Your task to perform on an android device: toggle airplane mode Image 0: 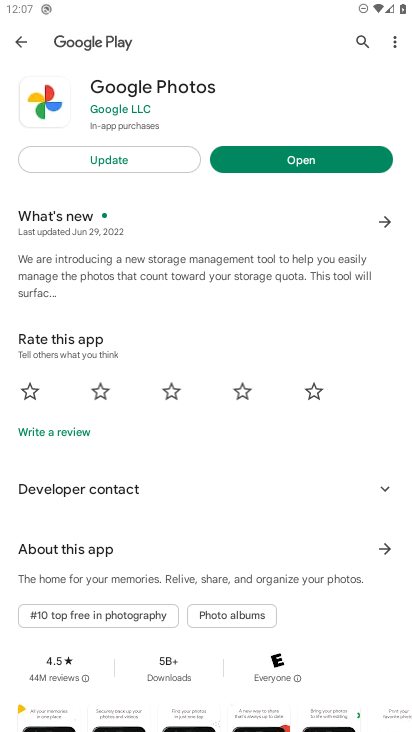
Step 0: press home button
Your task to perform on an android device: toggle airplane mode Image 1: 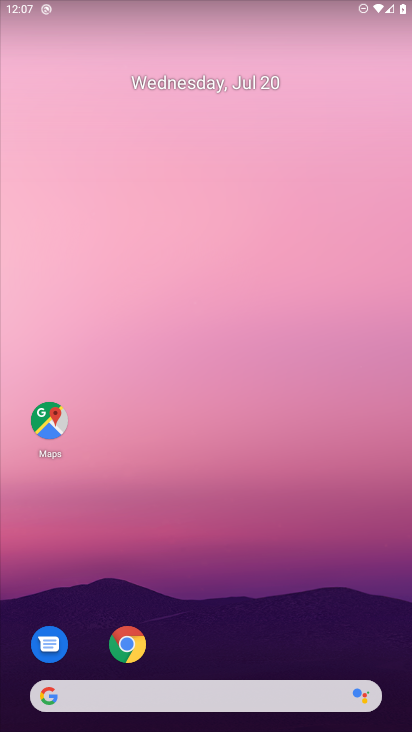
Step 1: drag from (23, 694) to (276, 38)
Your task to perform on an android device: toggle airplane mode Image 2: 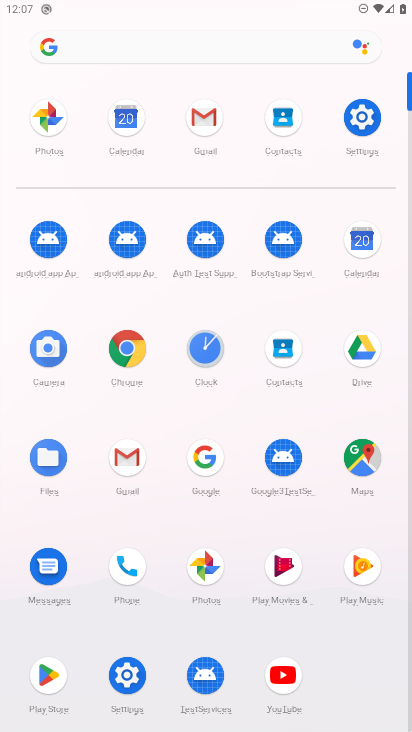
Step 2: click (139, 666)
Your task to perform on an android device: toggle airplane mode Image 3: 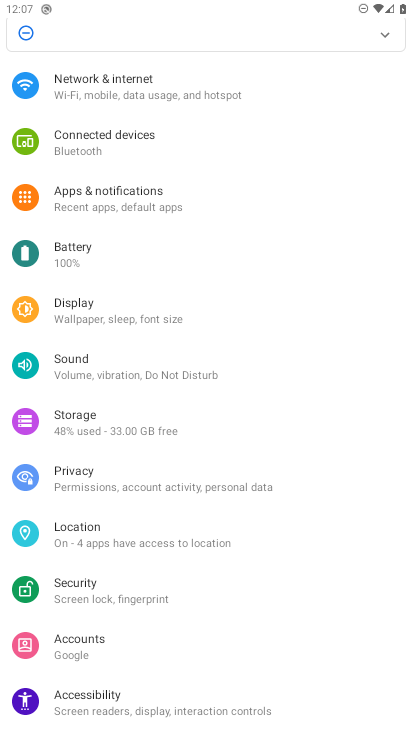
Step 3: click (120, 79)
Your task to perform on an android device: toggle airplane mode Image 4: 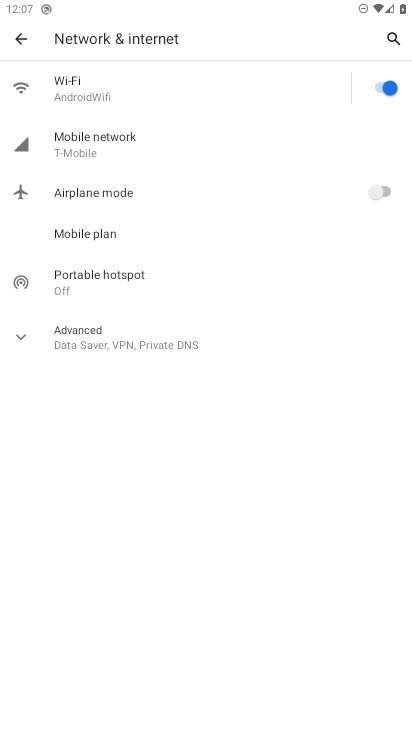
Step 4: task complete